Your task to perform on an android device: turn smart compose on in the gmail app Image 0: 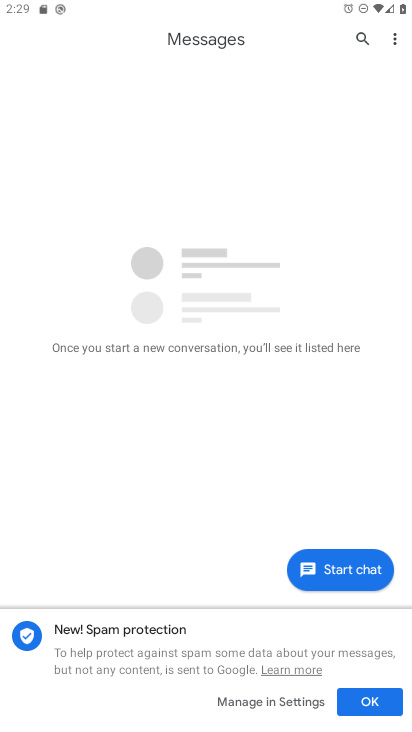
Step 0: press home button
Your task to perform on an android device: turn smart compose on in the gmail app Image 1: 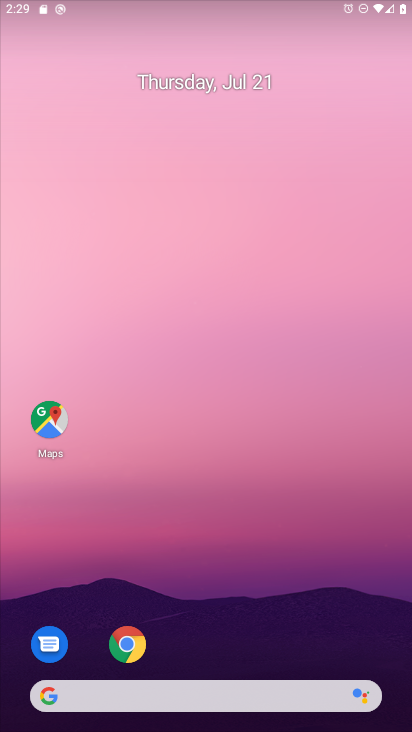
Step 1: drag from (219, 688) to (252, 312)
Your task to perform on an android device: turn smart compose on in the gmail app Image 2: 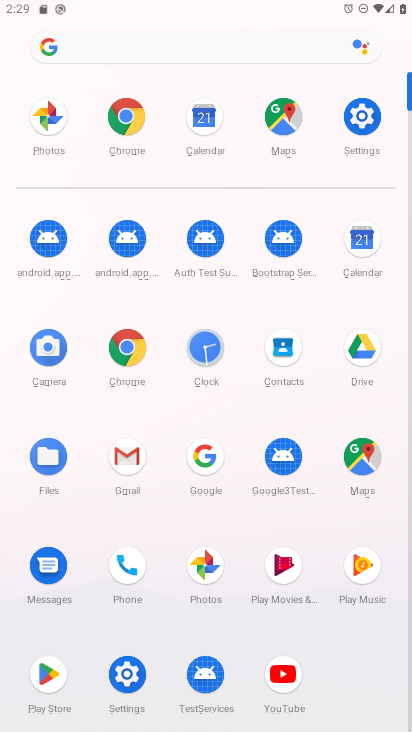
Step 2: click (126, 451)
Your task to perform on an android device: turn smart compose on in the gmail app Image 3: 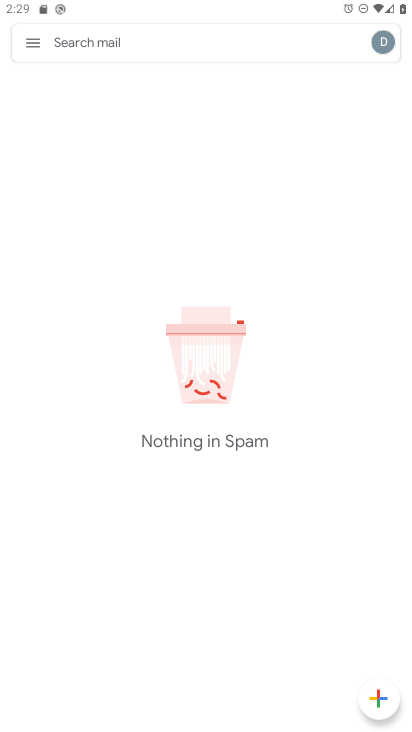
Step 3: click (37, 35)
Your task to perform on an android device: turn smart compose on in the gmail app Image 4: 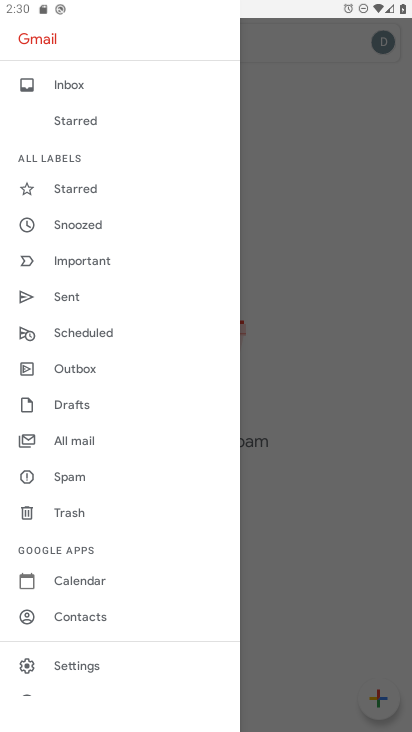
Step 4: click (69, 667)
Your task to perform on an android device: turn smart compose on in the gmail app Image 5: 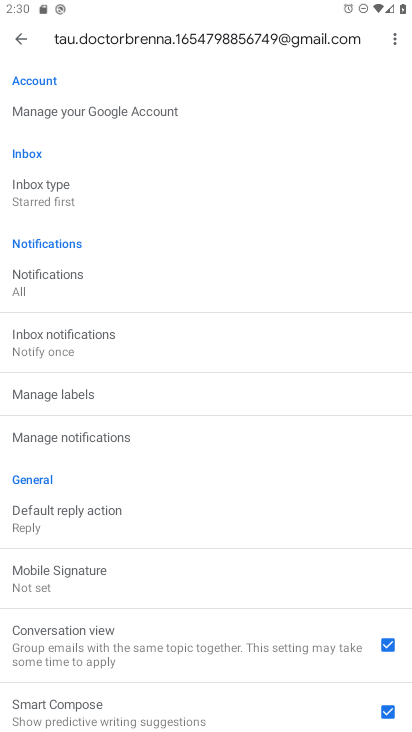
Step 5: task complete